Your task to perform on an android device: turn notification dots on Image 0: 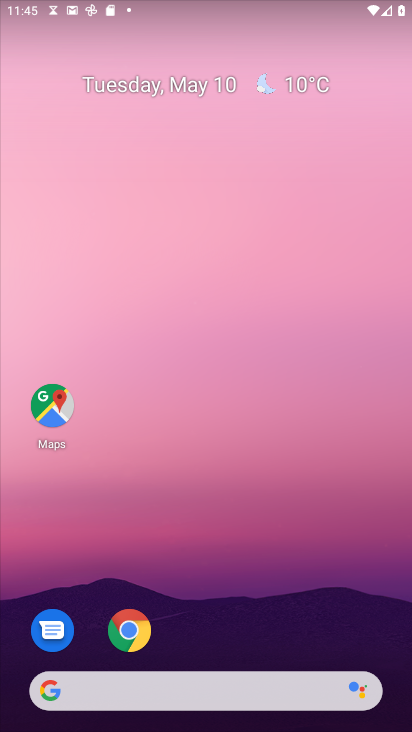
Step 0: drag from (236, 627) to (233, 81)
Your task to perform on an android device: turn notification dots on Image 1: 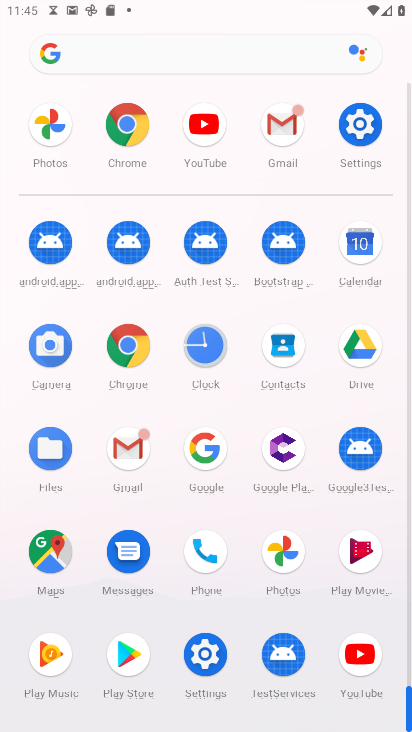
Step 1: click (360, 124)
Your task to perform on an android device: turn notification dots on Image 2: 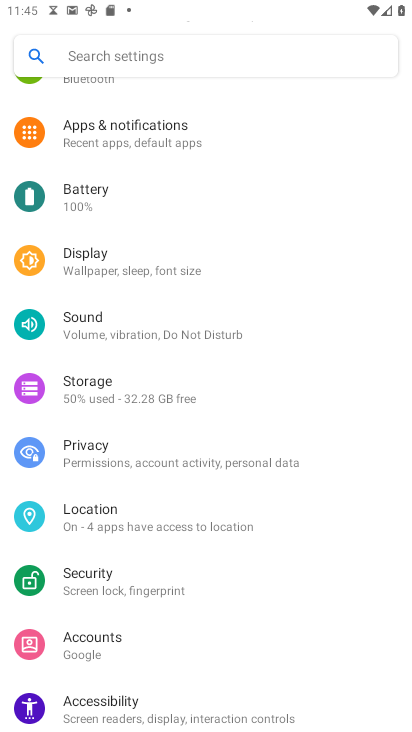
Step 2: click (128, 137)
Your task to perform on an android device: turn notification dots on Image 3: 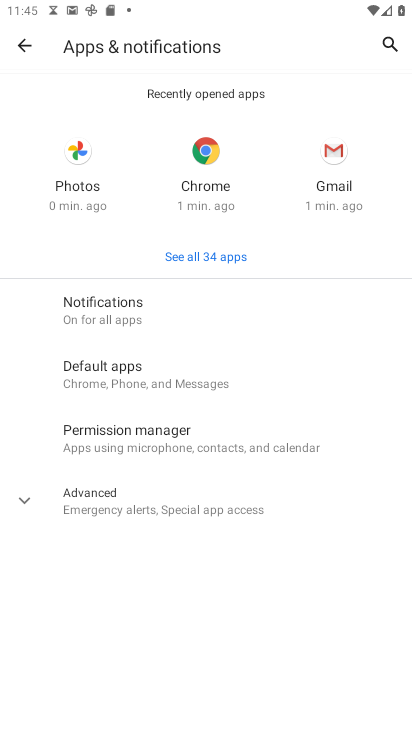
Step 3: click (174, 314)
Your task to perform on an android device: turn notification dots on Image 4: 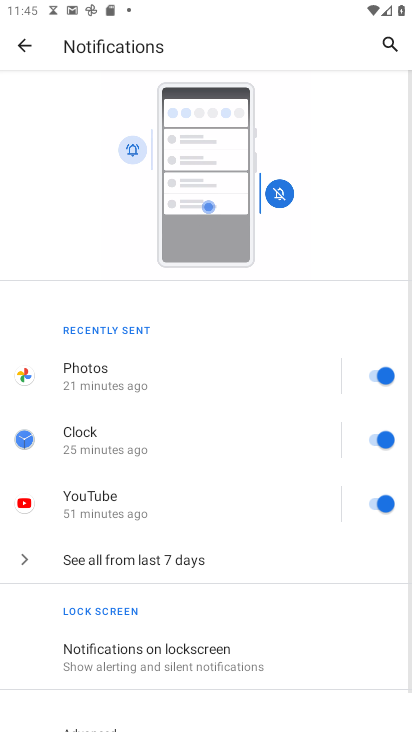
Step 4: drag from (243, 586) to (281, 241)
Your task to perform on an android device: turn notification dots on Image 5: 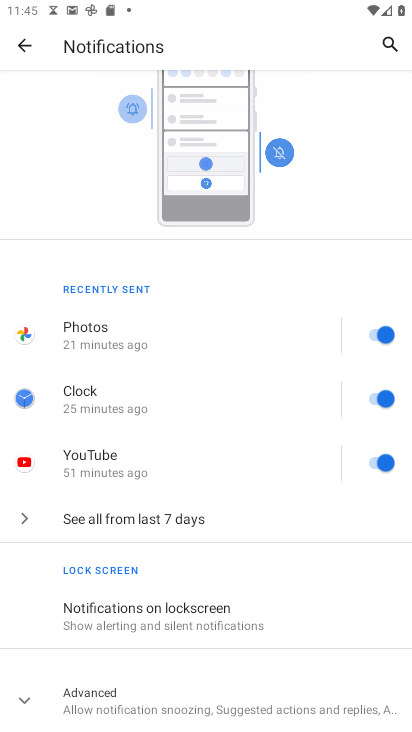
Step 5: click (221, 700)
Your task to perform on an android device: turn notification dots on Image 6: 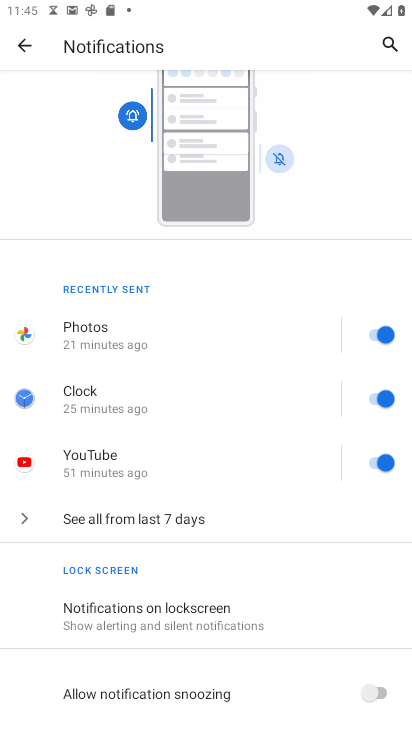
Step 6: drag from (242, 662) to (249, 379)
Your task to perform on an android device: turn notification dots on Image 7: 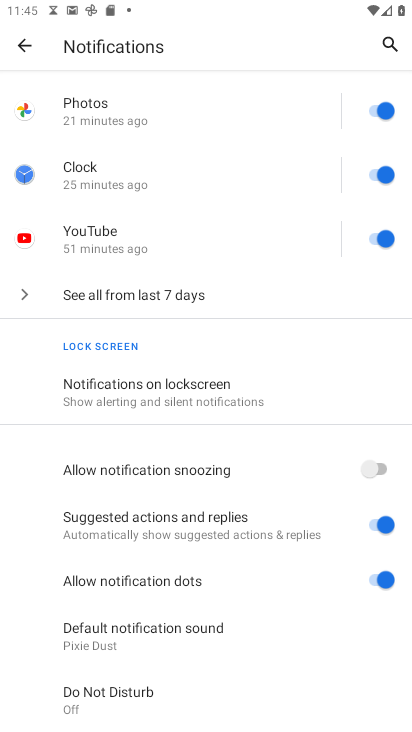
Step 7: click (379, 575)
Your task to perform on an android device: turn notification dots on Image 8: 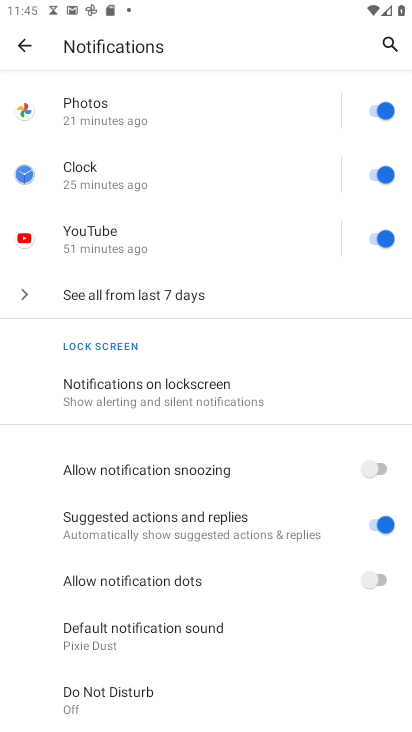
Step 8: task complete